Your task to perform on an android device: refresh tabs in the chrome app Image 0: 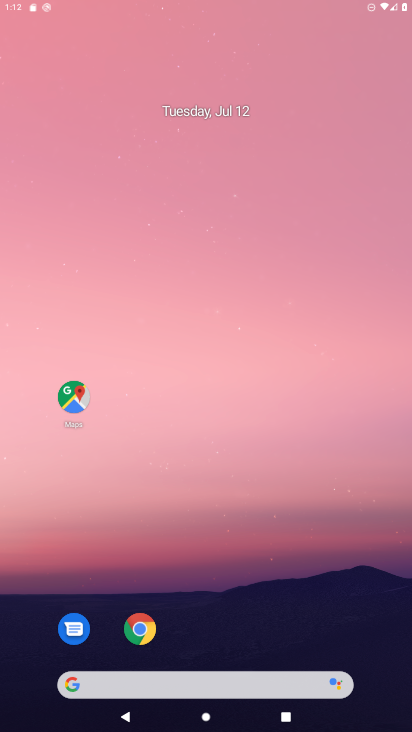
Step 0: press home button
Your task to perform on an android device: refresh tabs in the chrome app Image 1: 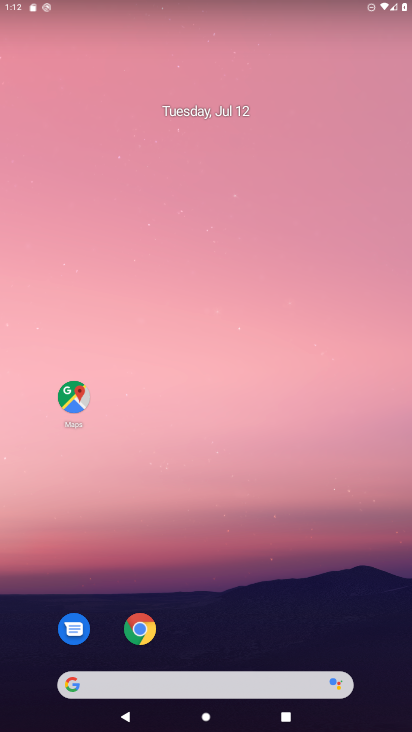
Step 1: click (135, 625)
Your task to perform on an android device: refresh tabs in the chrome app Image 2: 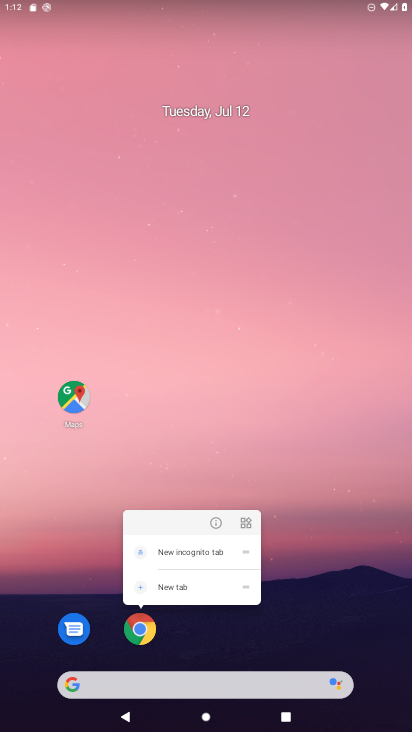
Step 2: click (140, 626)
Your task to perform on an android device: refresh tabs in the chrome app Image 3: 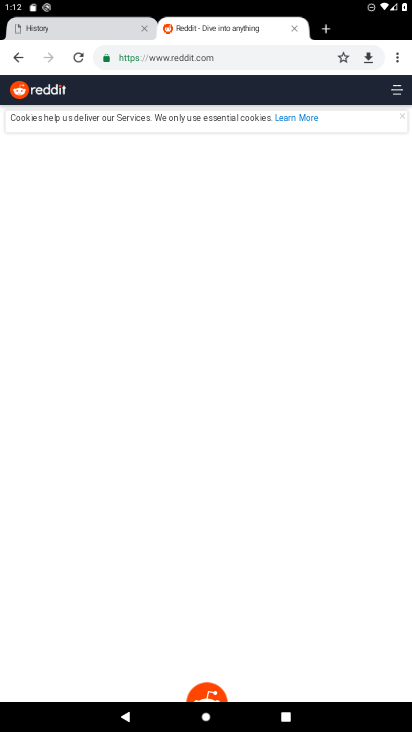
Step 3: click (396, 54)
Your task to perform on an android device: refresh tabs in the chrome app Image 4: 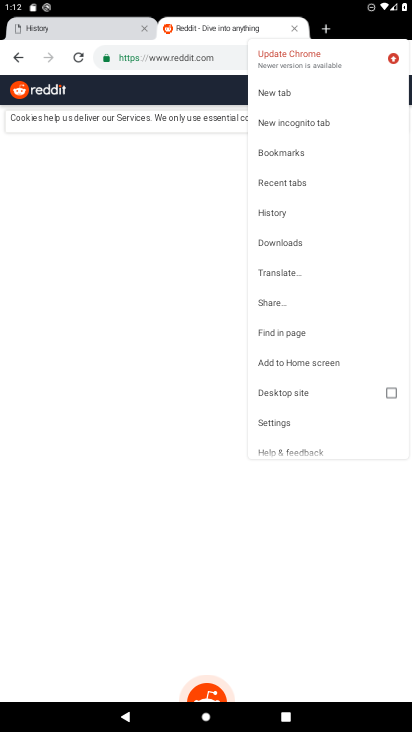
Step 4: click (79, 56)
Your task to perform on an android device: refresh tabs in the chrome app Image 5: 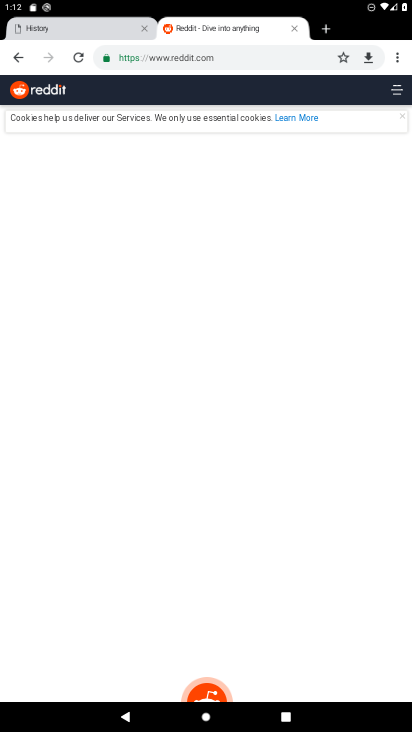
Step 5: click (79, 56)
Your task to perform on an android device: refresh tabs in the chrome app Image 6: 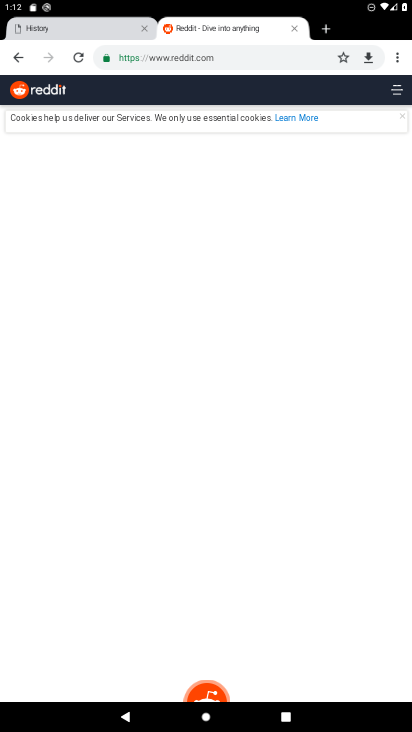
Step 6: task complete